Your task to perform on an android device: turn on location history Image 0: 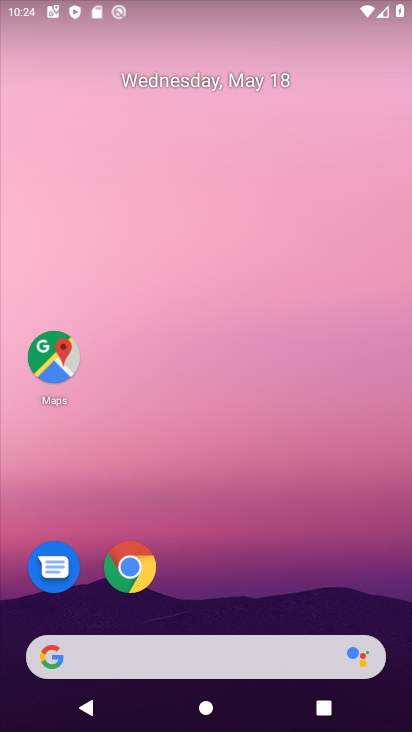
Step 0: drag from (229, 678) to (363, 191)
Your task to perform on an android device: turn on location history Image 1: 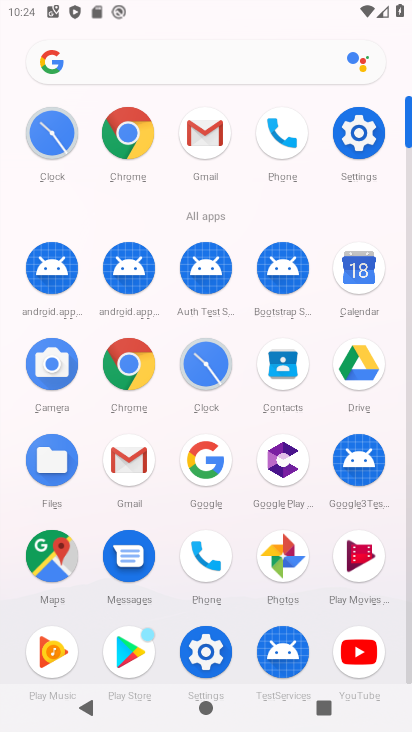
Step 1: click (205, 635)
Your task to perform on an android device: turn on location history Image 2: 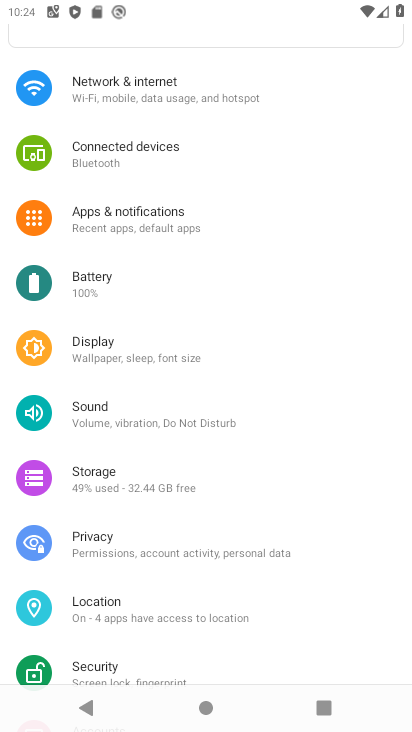
Step 2: drag from (143, 438) to (151, 561)
Your task to perform on an android device: turn on location history Image 3: 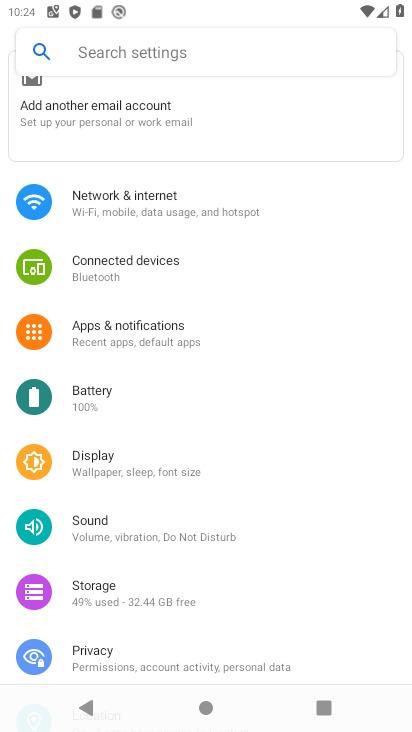
Step 3: click (172, 49)
Your task to perform on an android device: turn on location history Image 4: 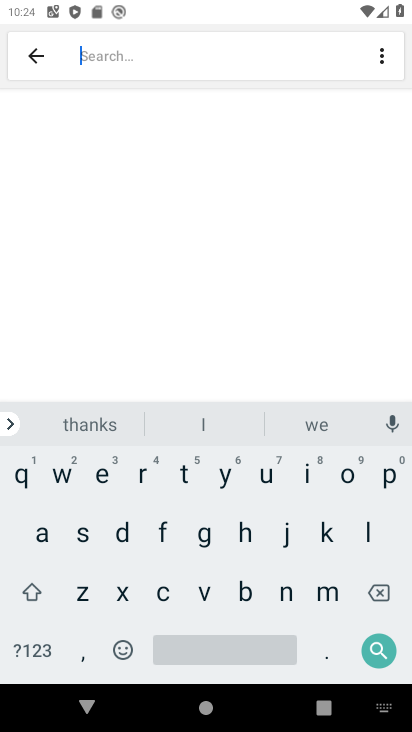
Step 4: click (367, 534)
Your task to perform on an android device: turn on location history Image 5: 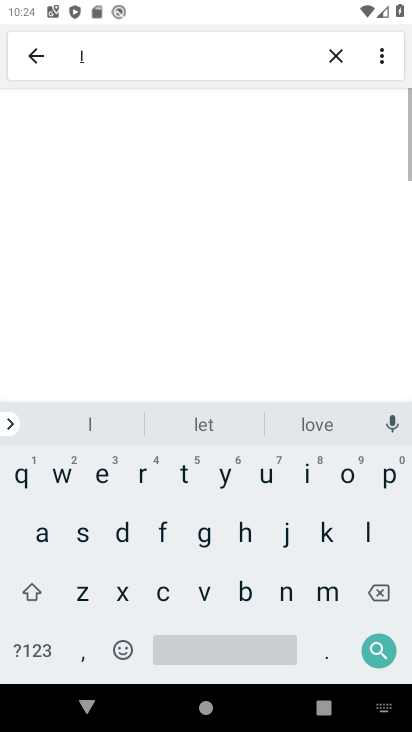
Step 5: click (341, 477)
Your task to perform on an android device: turn on location history Image 6: 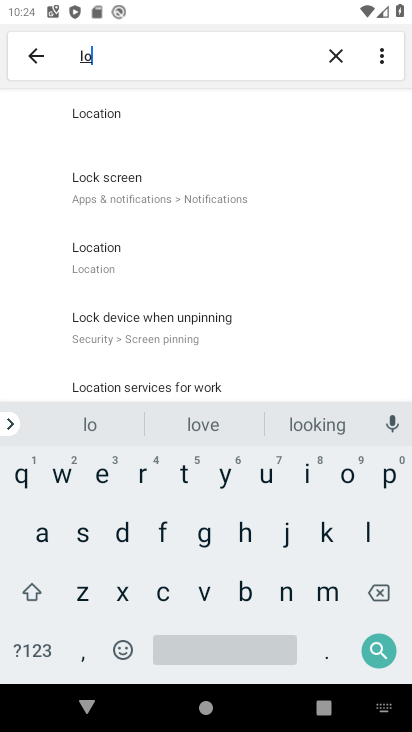
Step 6: click (92, 259)
Your task to perform on an android device: turn on location history Image 7: 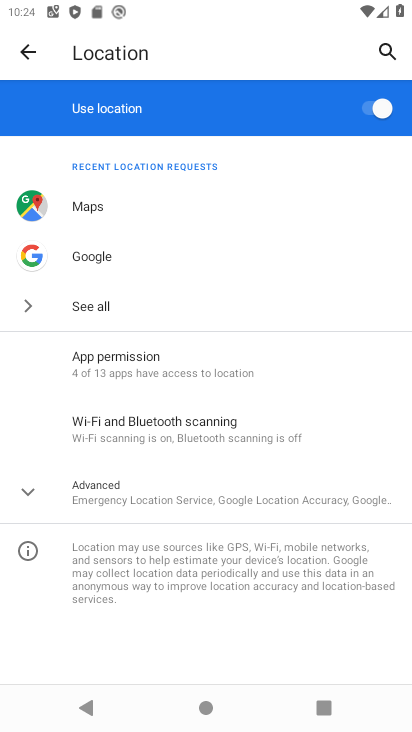
Step 7: click (53, 503)
Your task to perform on an android device: turn on location history Image 8: 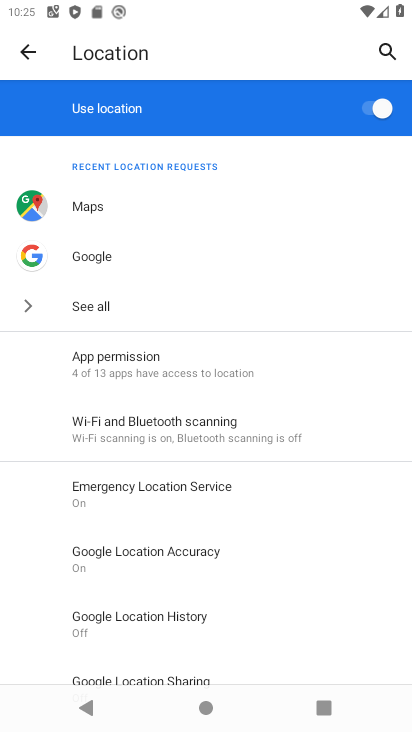
Step 8: click (177, 619)
Your task to perform on an android device: turn on location history Image 9: 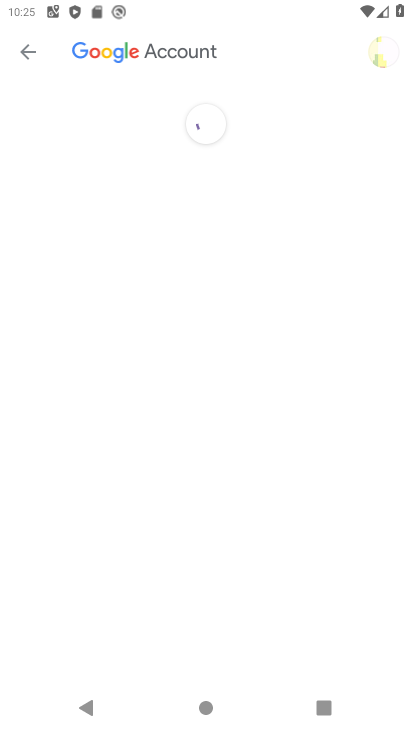
Step 9: task complete